Your task to perform on an android device: read, delete, or share a saved page in the chrome app Image 0: 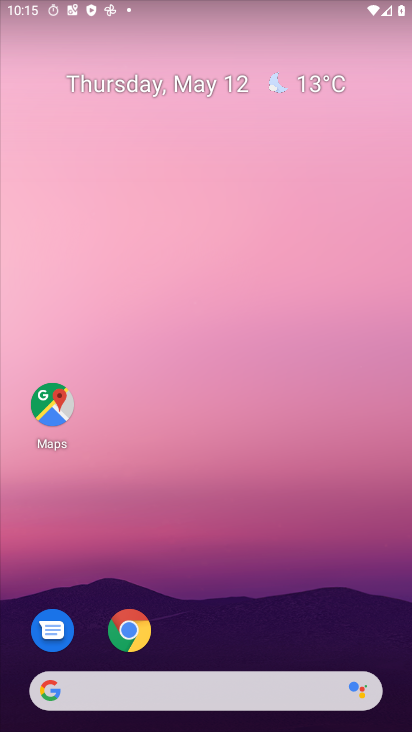
Step 0: click (152, 627)
Your task to perform on an android device: read, delete, or share a saved page in the chrome app Image 1: 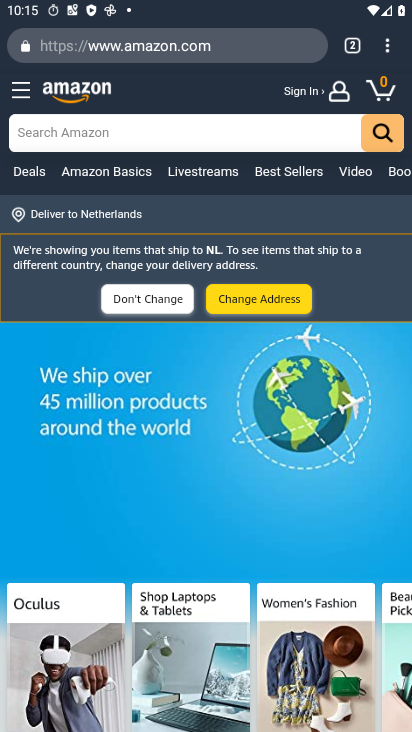
Step 1: click (390, 48)
Your task to perform on an android device: read, delete, or share a saved page in the chrome app Image 2: 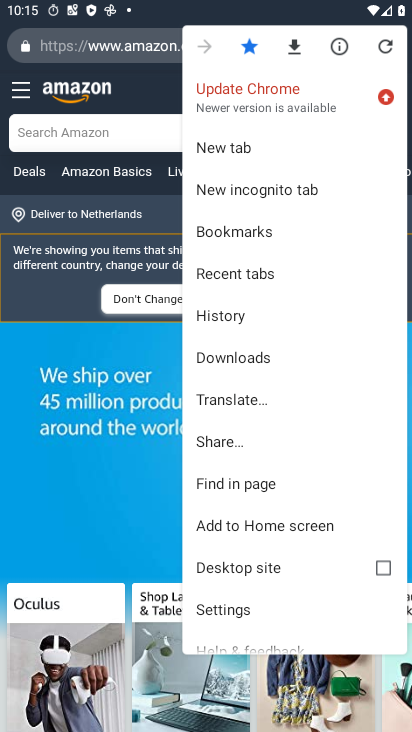
Step 2: click (223, 357)
Your task to perform on an android device: read, delete, or share a saved page in the chrome app Image 3: 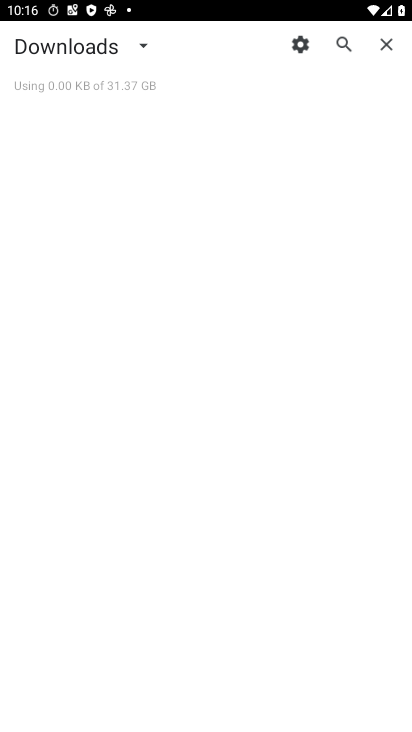
Step 3: task complete